Your task to perform on an android device: turn on notifications settings in the gmail app Image 0: 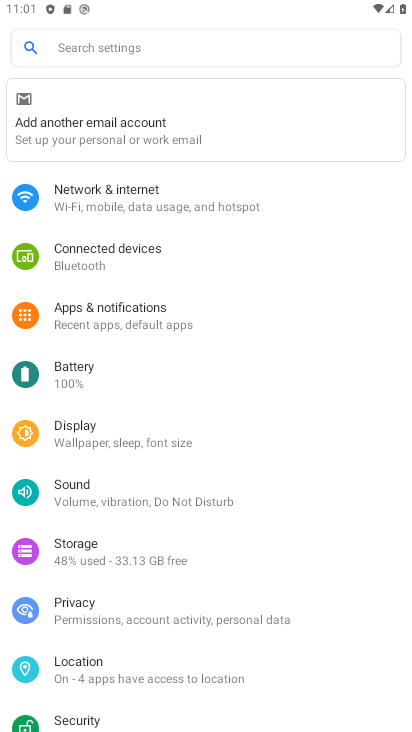
Step 0: press home button
Your task to perform on an android device: turn on notifications settings in the gmail app Image 1: 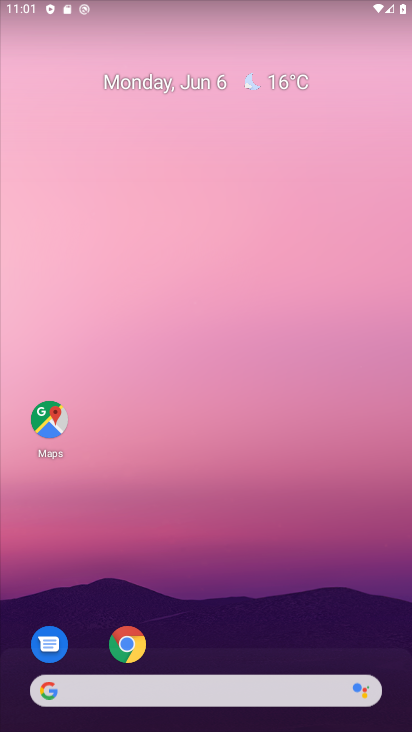
Step 1: drag from (223, 658) to (296, 102)
Your task to perform on an android device: turn on notifications settings in the gmail app Image 2: 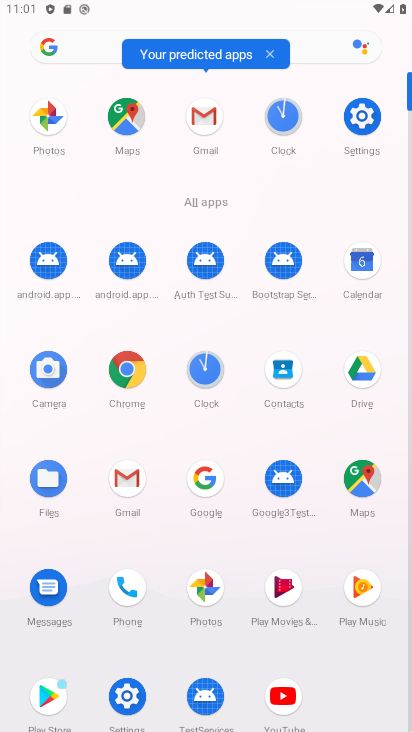
Step 2: click (123, 469)
Your task to perform on an android device: turn on notifications settings in the gmail app Image 3: 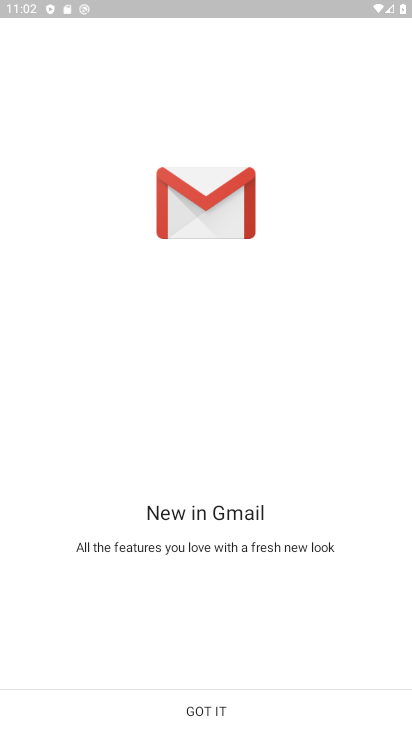
Step 3: click (206, 706)
Your task to perform on an android device: turn on notifications settings in the gmail app Image 4: 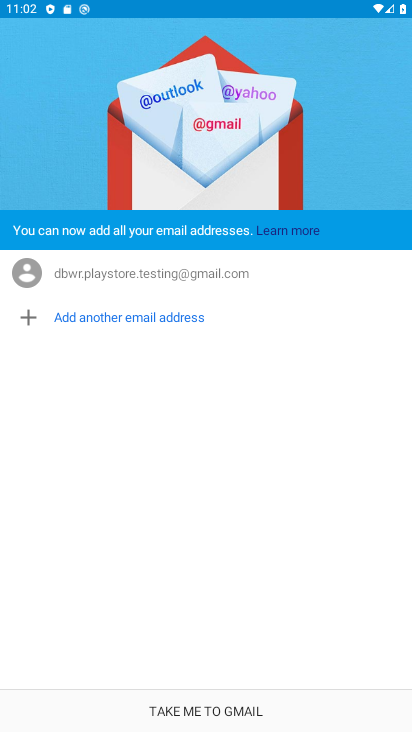
Step 4: click (173, 712)
Your task to perform on an android device: turn on notifications settings in the gmail app Image 5: 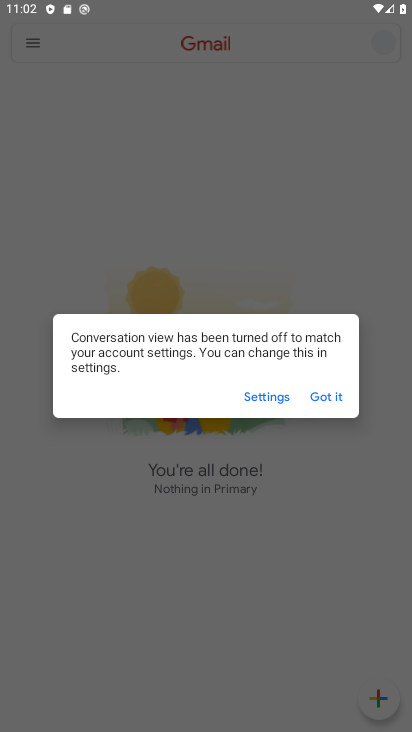
Step 5: click (331, 395)
Your task to perform on an android device: turn on notifications settings in the gmail app Image 6: 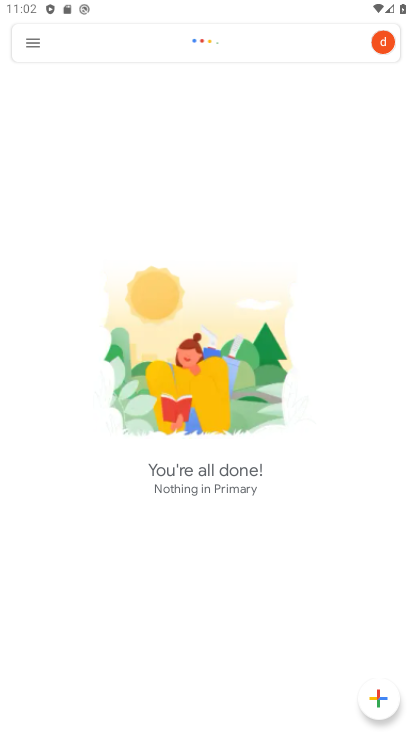
Step 6: click (26, 42)
Your task to perform on an android device: turn on notifications settings in the gmail app Image 7: 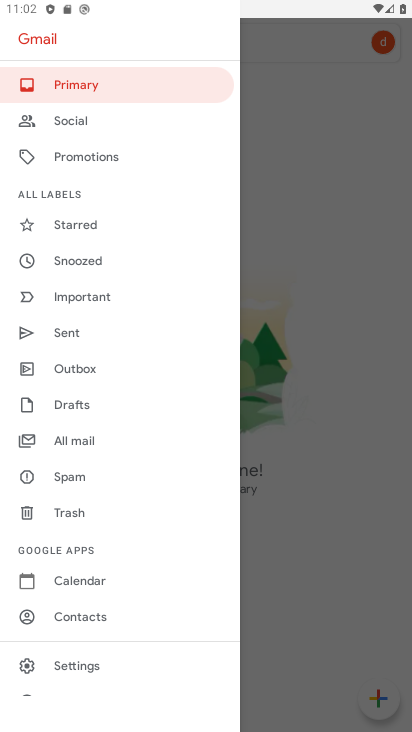
Step 7: click (56, 660)
Your task to perform on an android device: turn on notifications settings in the gmail app Image 8: 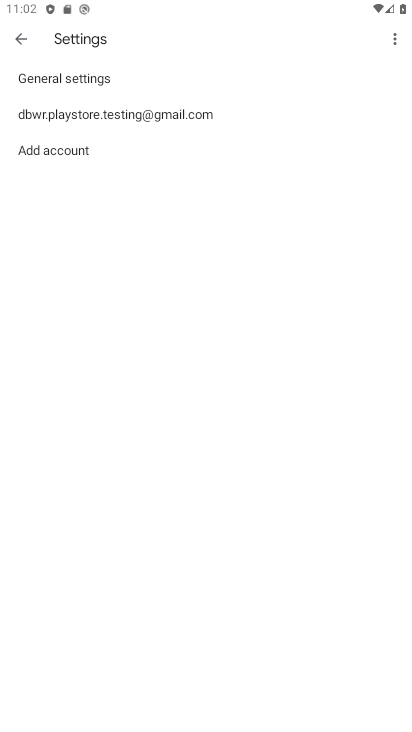
Step 8: click (124, 108)
Your task to perform on an android device: turn on notifications settings in the gmail app Image 9: 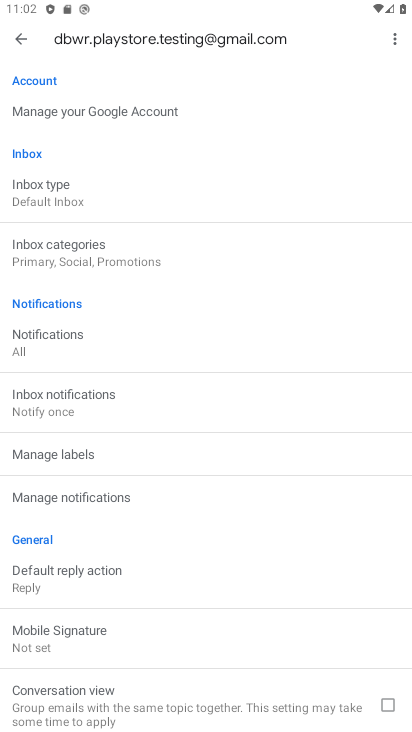
Step 9: click (119, 499)
Your task to perform on an android device: turn on notifications settings in the gmail app Image 10: 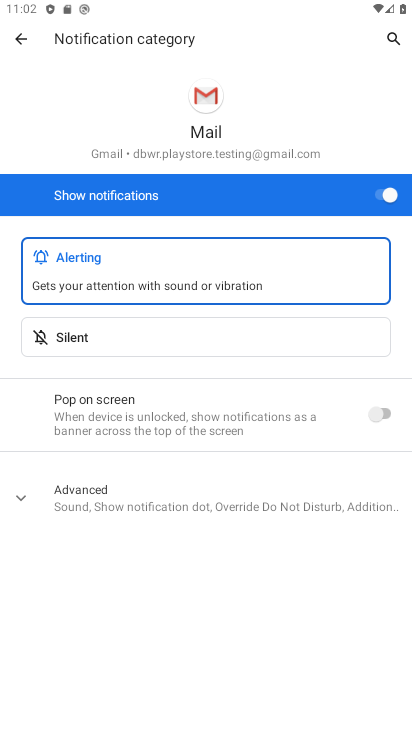
Step 10: task complete